Your task to perform on an android device: turn off airplane mode Image 0: 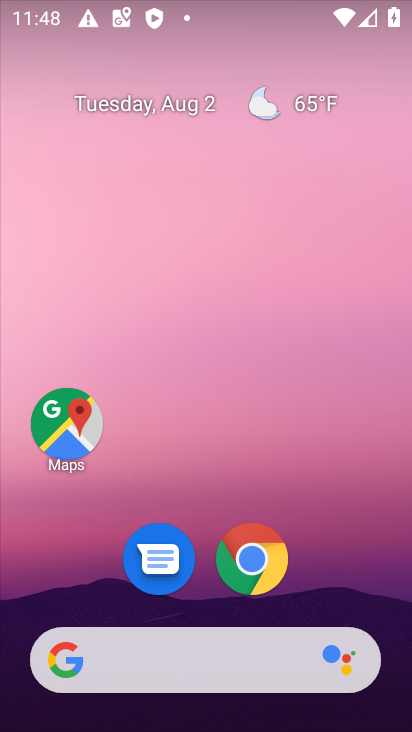
Step 0: drag from (208, 603) to (212, 73)
Your task to perform on an android device: turn off airplane mode Image 1: 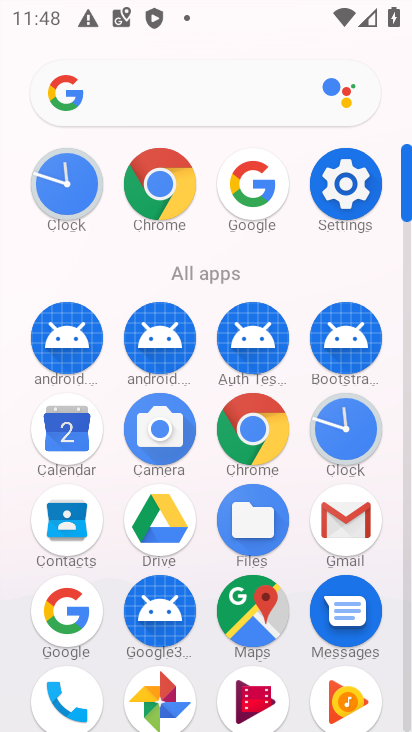
Step 1: click (337, 190)
Your task to perform on an android device: turn off airplane mode Image 2: 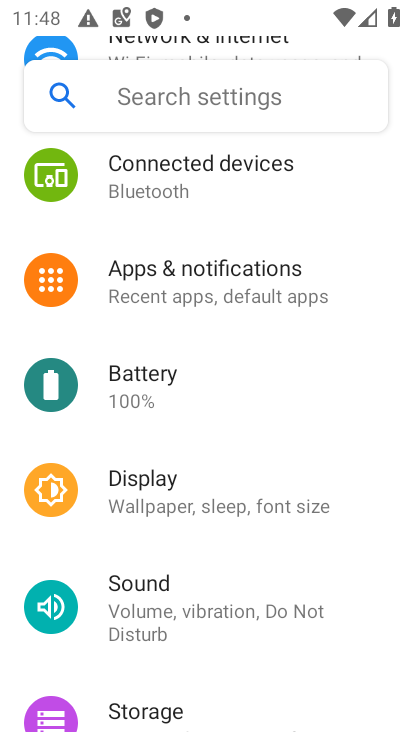
Step 2: drag from (278, 218) to (288, 655)
Your task to perform on an android device: turn off airplane mode Image 3: 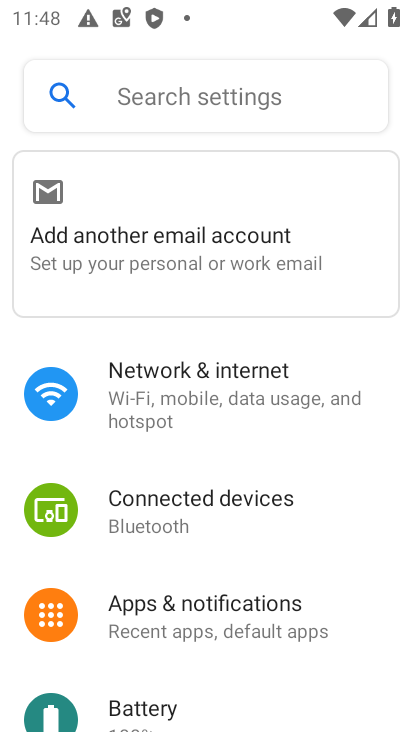
Step 3: click (165, 381)
Your task to perform on an android device: turn off airplane mode Image 4: 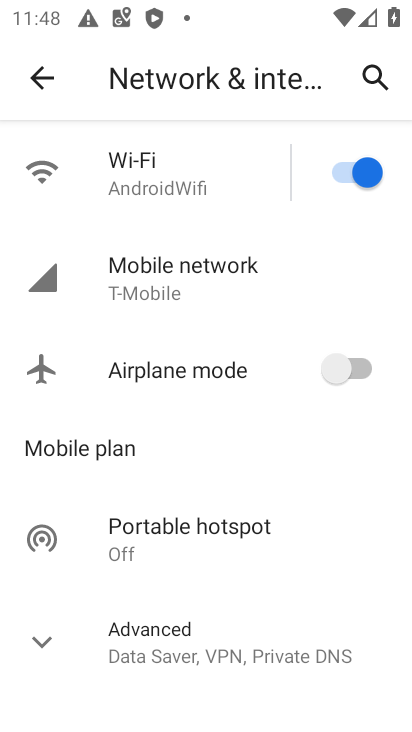
Step 4: task complete